Your task to perform on an android device: delete a single message in the gmail app Image 0: 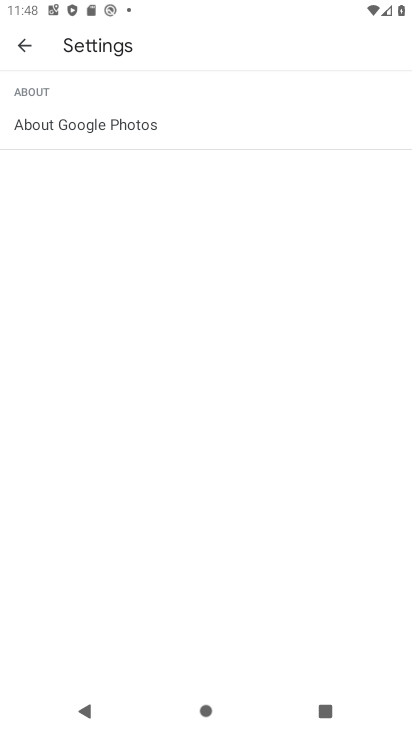
Step 0: press back button
Your task to perform on an android device: delete a single message in the gmail app Image 1: 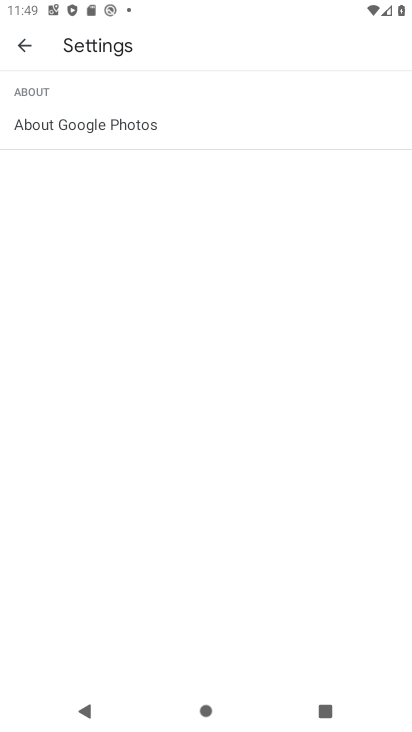
Step 1: press back button
Your task to perform on an android device: delete a single message in the gmail app Image 2: 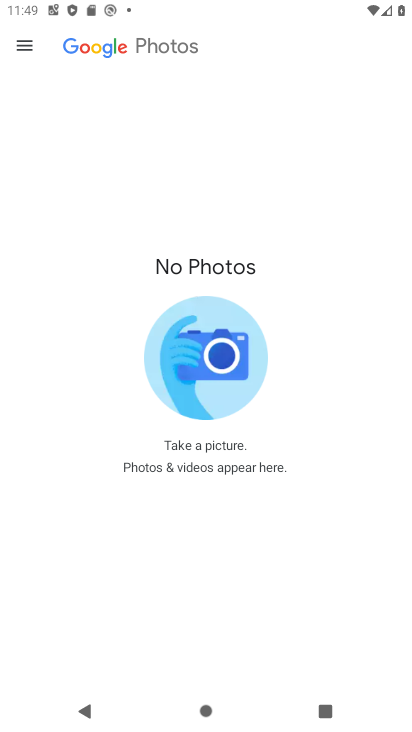
Step 2: press back button
Your task to perform on an android device: delete a single message in the gmail app Image 3: 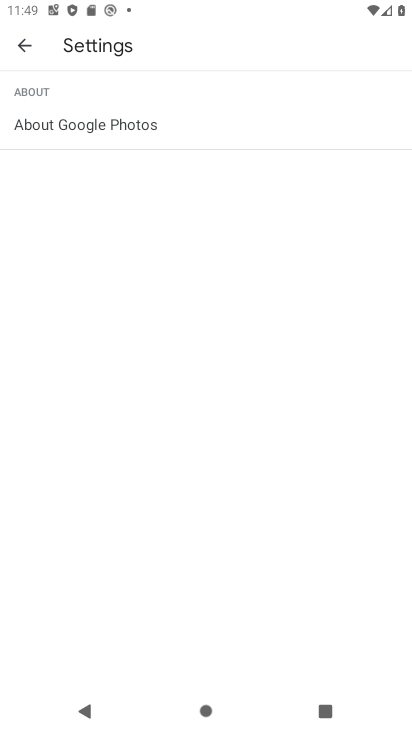
Step 3: press home button
Your task to perform on an android device: delete a single message in the gmail app Image 4: 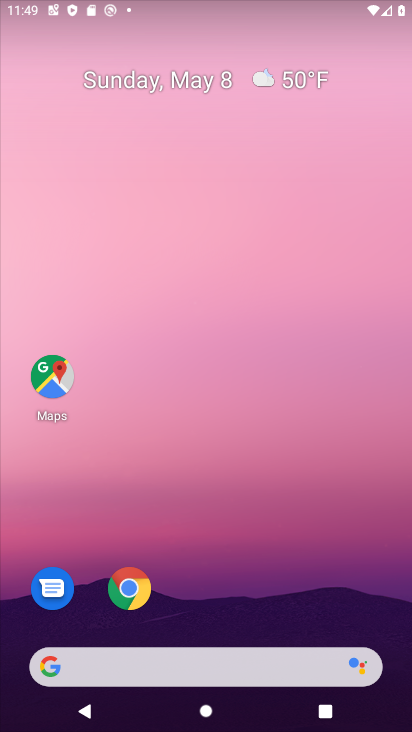
Step 4: drag from (169, 544) to (330, 7)
Your task to perform on an android device: delete a single message in the gmail app Image 5: 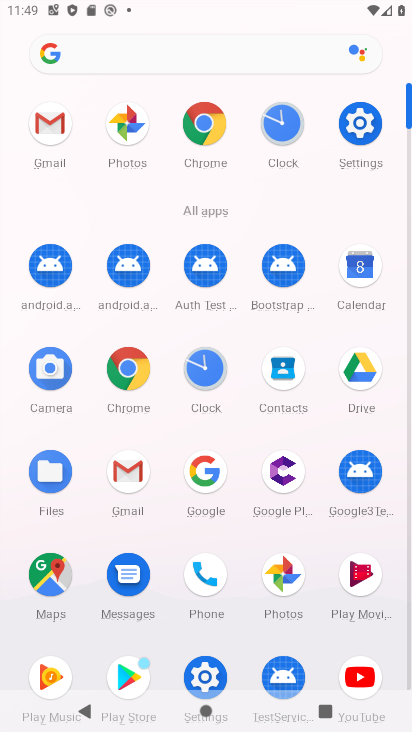
Step 5: click (48, 120)
Your task to perform on an android device: delete a single message in the gmail app Image 6: 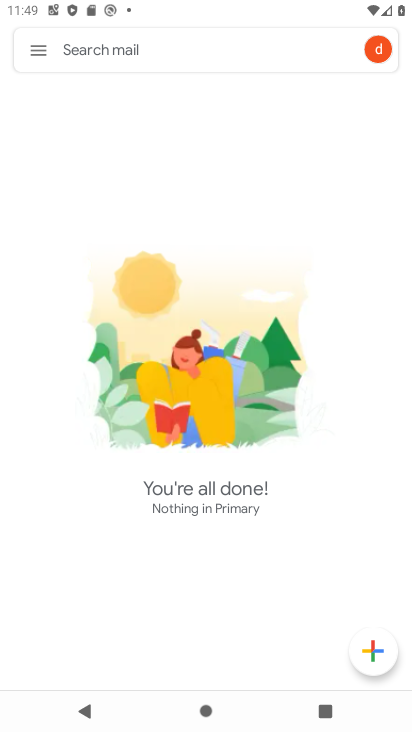
Step 6: click (39, 47)
Your task to perform on an android device: delete a single message in the gmail app Image 7: 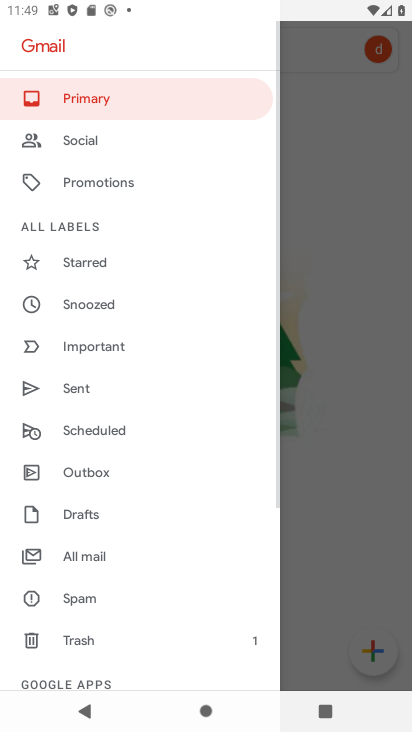
Step 7: click (96, 563)
Your task to perform on an android device: delete a single message in the gmail app Image 8: 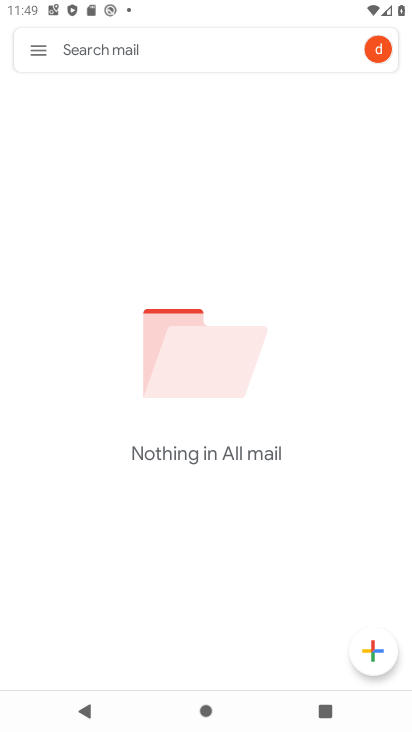
Step 8: task complete